Your task to perform on an android device: move a message to another label in the gmail app Image 0: 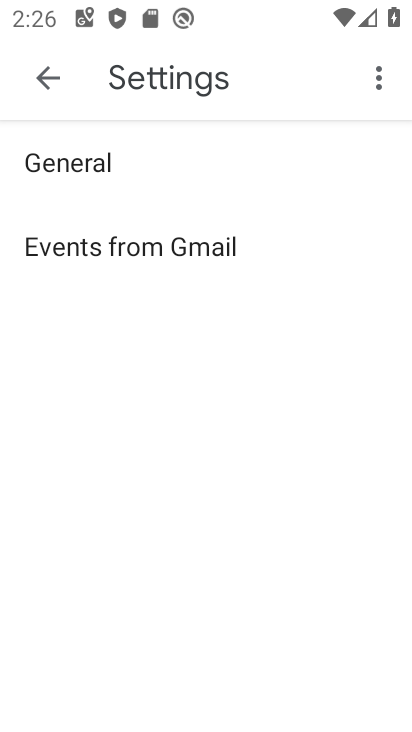
Step 0: press home button
Your task to perform on an android device: move a message to another label in the gmail app Image 1: 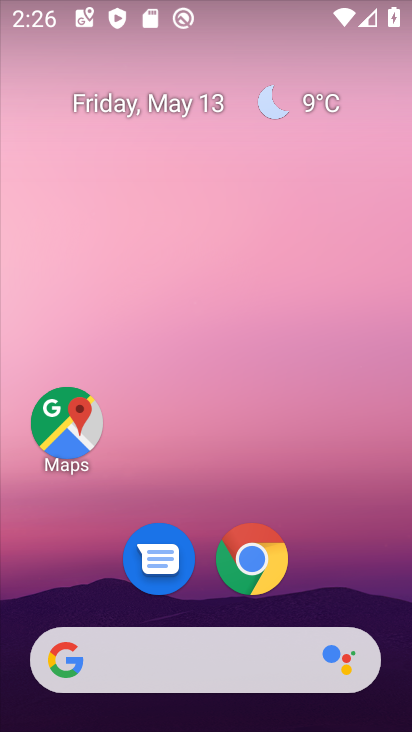
Step 1: drag from (298, 533) to (268, 146)
Your task to perform on an android device: move a message to another label in the gmail app Image 2: 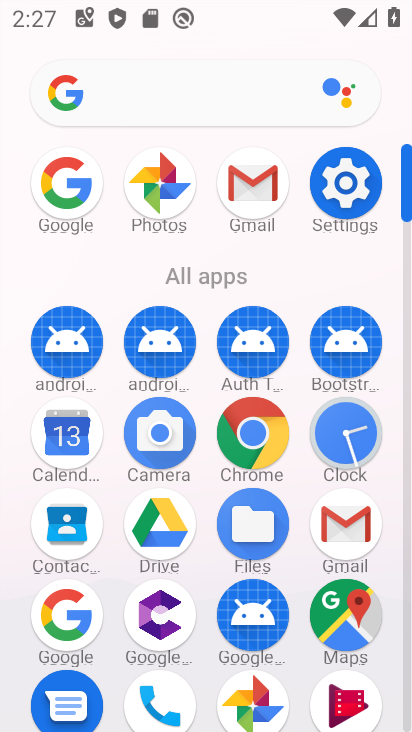
Step 2: drag from (283, 660) to (285, 306)
Your task to perform on an android device: move a message to another label in the gmail app Image 3: 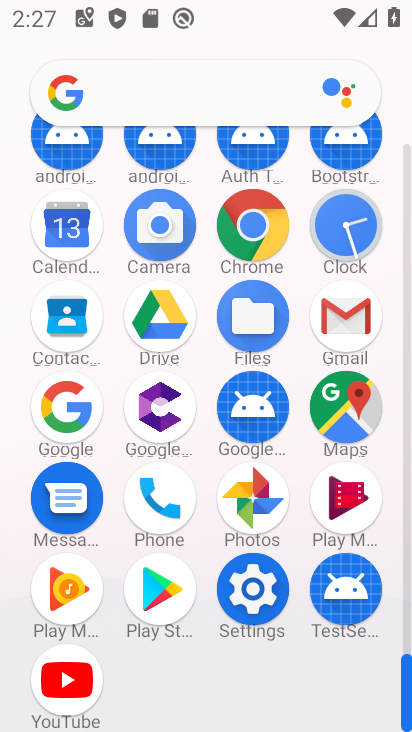
Step 3: click (342, 333)
Your task to perform on an android device: move a message to another label in the gmail app Image 4: 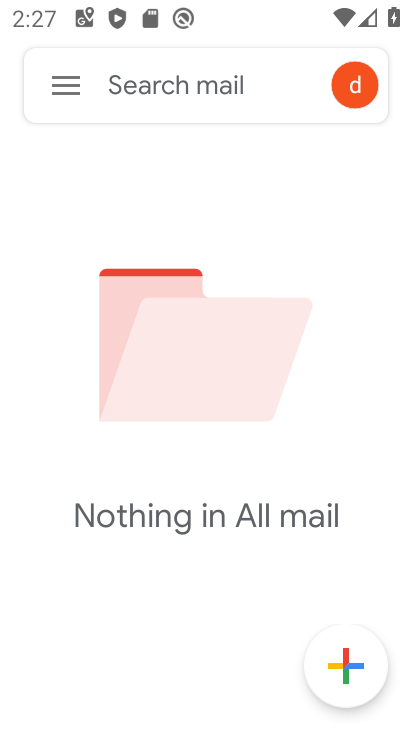
Step 4: task complete